Your task to perform on an android device: Search for sushi restaurants on Maps Image 0: 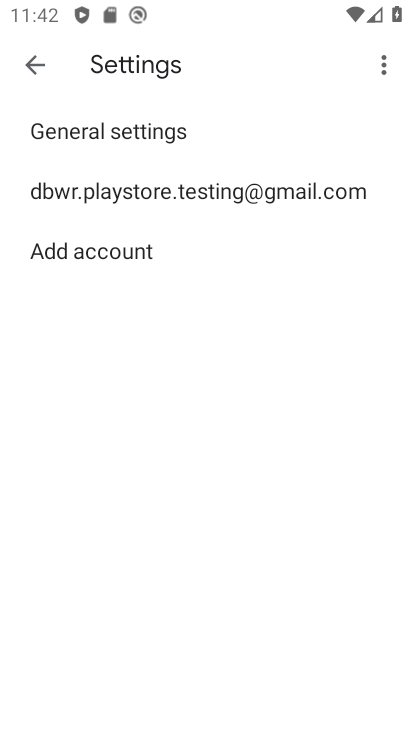
Step 0: press home button
Your task to perform on an android device: Search for sushi restaurants on Maps Image 1: 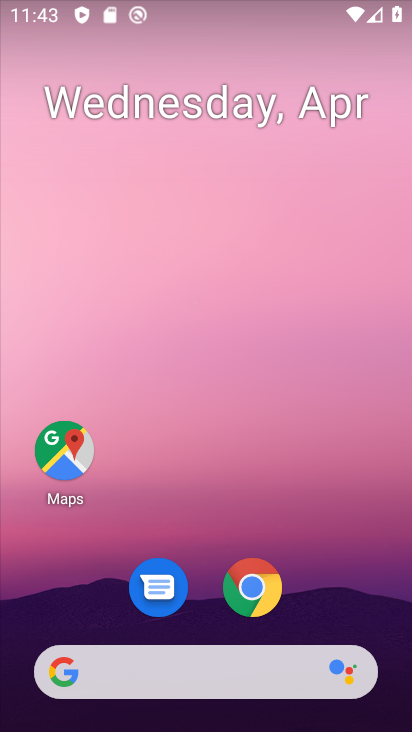
Step 1: click (90, 459)
Your task to perform on an android device: Search for sushi restaurants on Maps Image 2: 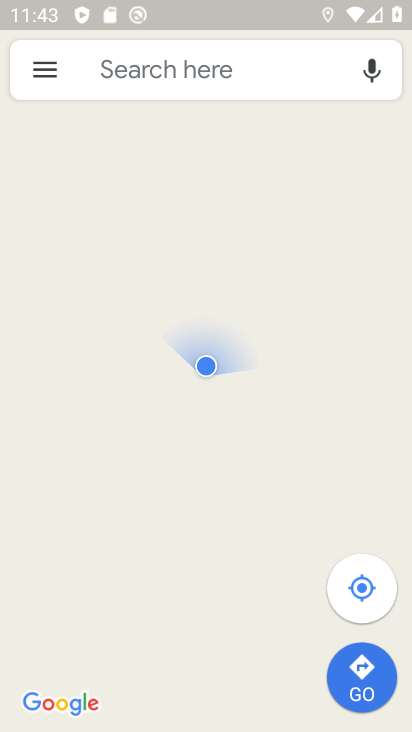
Step 2: click (127, 79)
Your task to perform on an android device: Search for sushi restaurants on Maps Image 3: 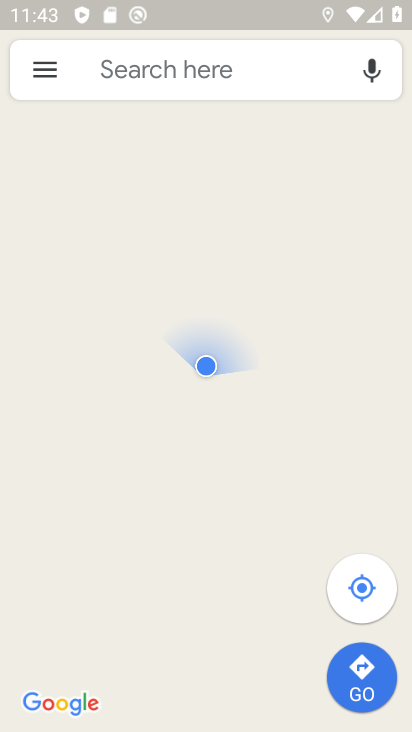
Step 3: drag from (172, 81) to (167, 139)
Your task to perform on an android device: Search for sushi restaurants on Maps Image 4: 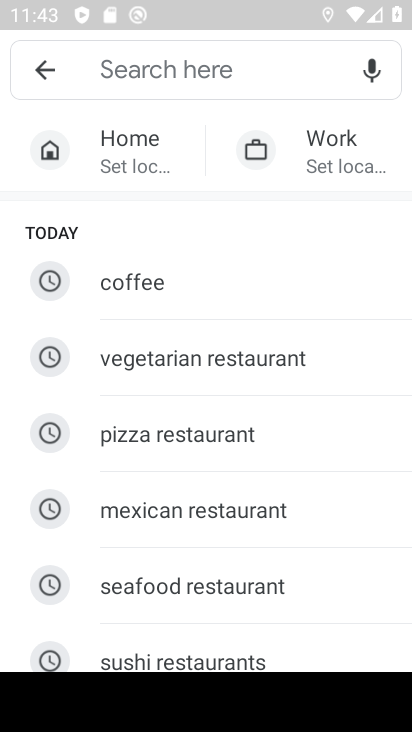
Step 4: type "sushi restaurants"
Your task to perform on an android device: Search for sushi restaurants on Maps Image 5: 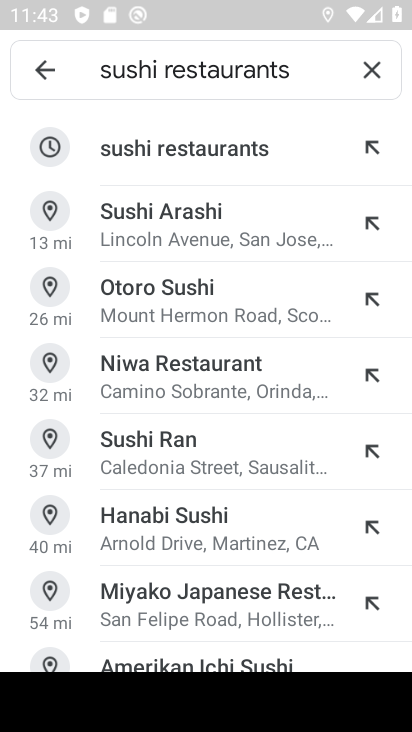
Step 5: click (177, 158)
Your task to perform on an android device: Search for sushi restaurants on Maps Image 6: 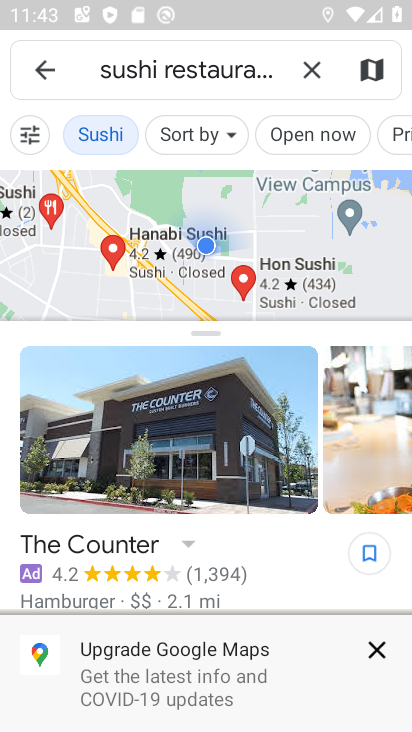
Step 6: task complete